Your task to perform on an android device: Find coffee shops on Maps Image 0: 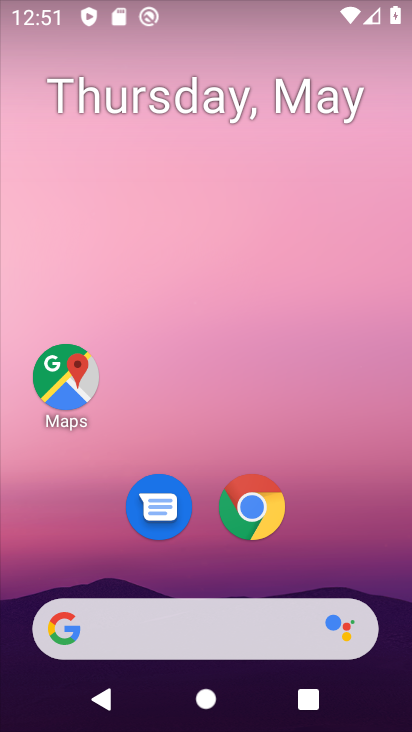
Step 0: drag from (245, 599) to (184, 88)
Your task to perform on an android device: Find coffee shops on Maps Image 1: 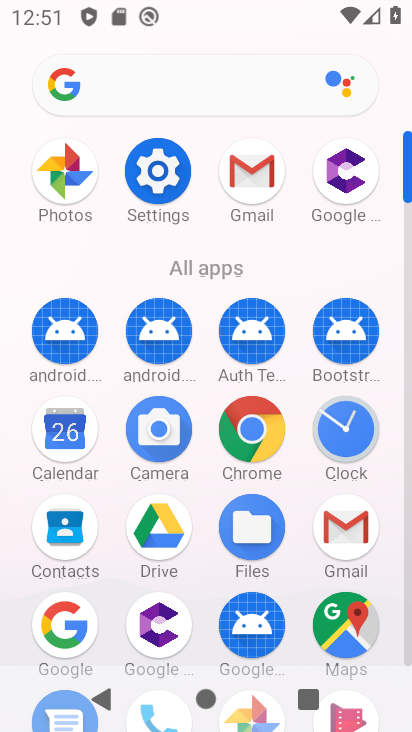
Step 1: click (347, 642)
Your task to perform on an android device: Find coffee shops on Maps Image 2: 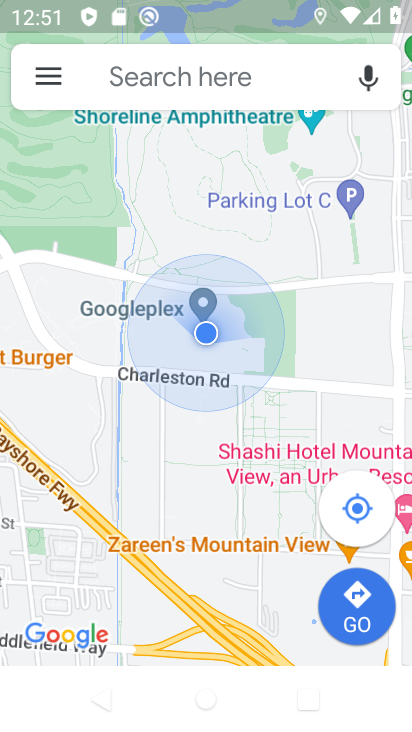
Step 2: click (283, 58)
Your task to perform on an android device: Find coffee shops on Maps Image 3: 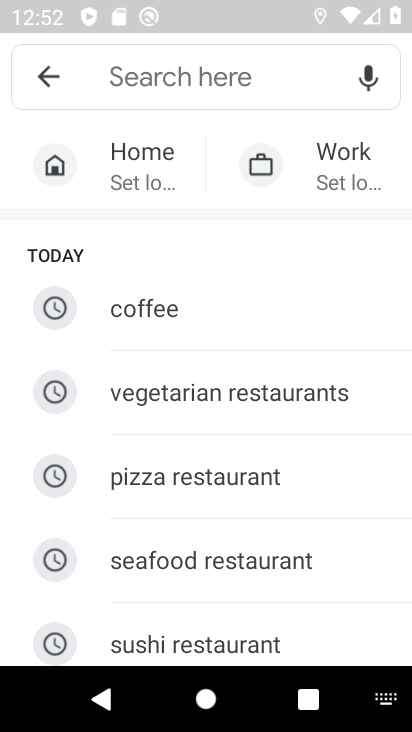
Step 3: type "coffee shops"
Your task to perform on an android device: Find coffee shops on Maps Image 4: 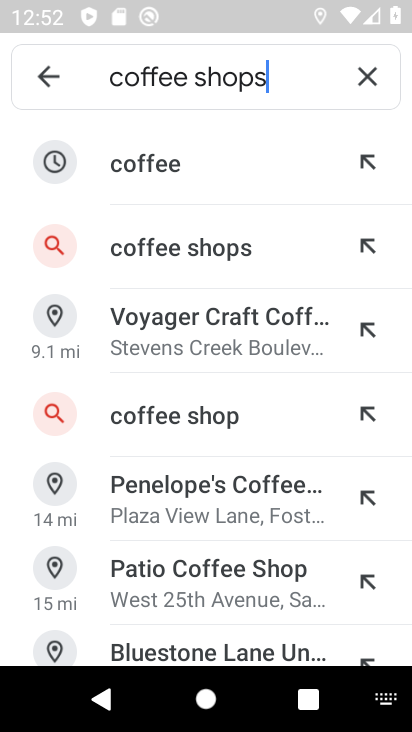
Step 4: task complete